Your task to perform on an android device: Go to Yahoo.com Image 0: 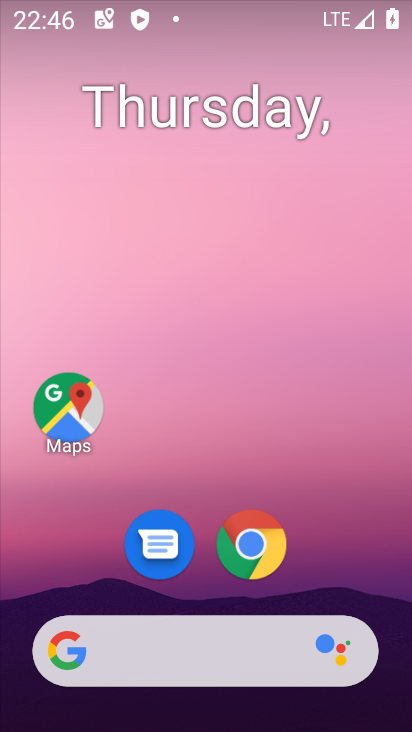
Step 0: click (279, 557)
Your task to perform on an android device: Go to Yahoo.com Image 1: 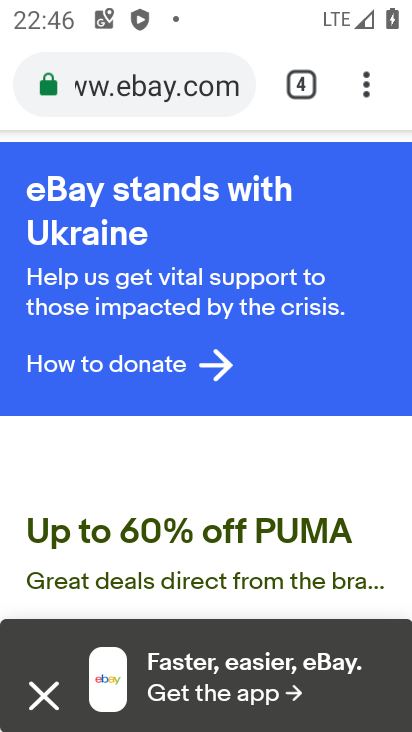
Step 1: click (307, 96)
Your task to perform on an android device: Go to Yahoo.com Image 2: 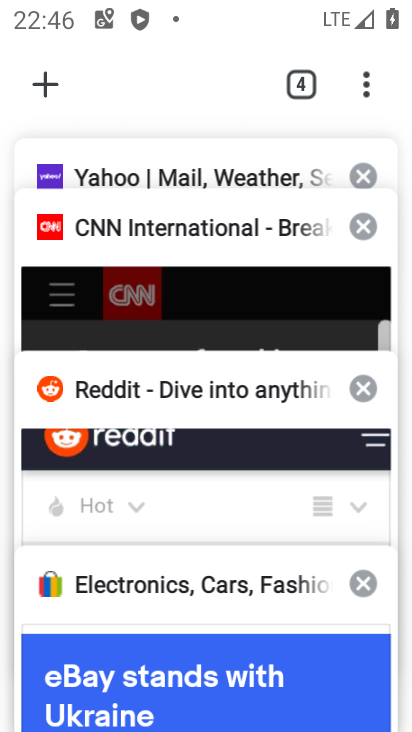
Step 2: click (181, 176)
Your task to perform on an android device: Go to Yahoo.com Image 3: 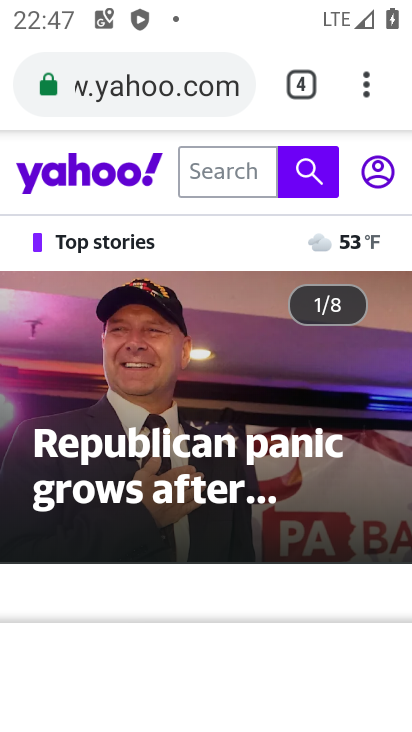
Step 3: drag from (242, 647) to (241, 302)
Your task to perform on an android device: Go to Yahoo.com Image 4: 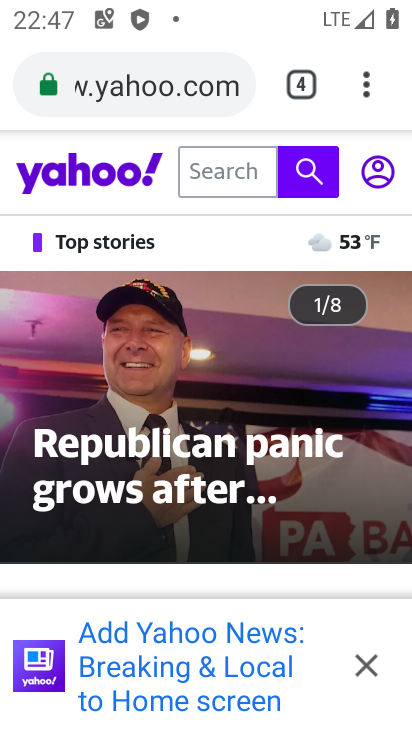
Step 4: click (242, 295)
Your task to perform on an android device: Go to Yahoo.com Image 5: 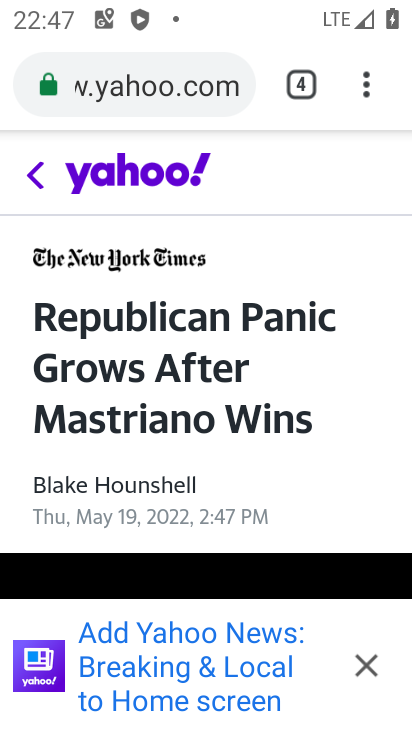
Step 5: task complete